Your task to perform on an android device: install app "Roku - Official Remote Control" Image 0: 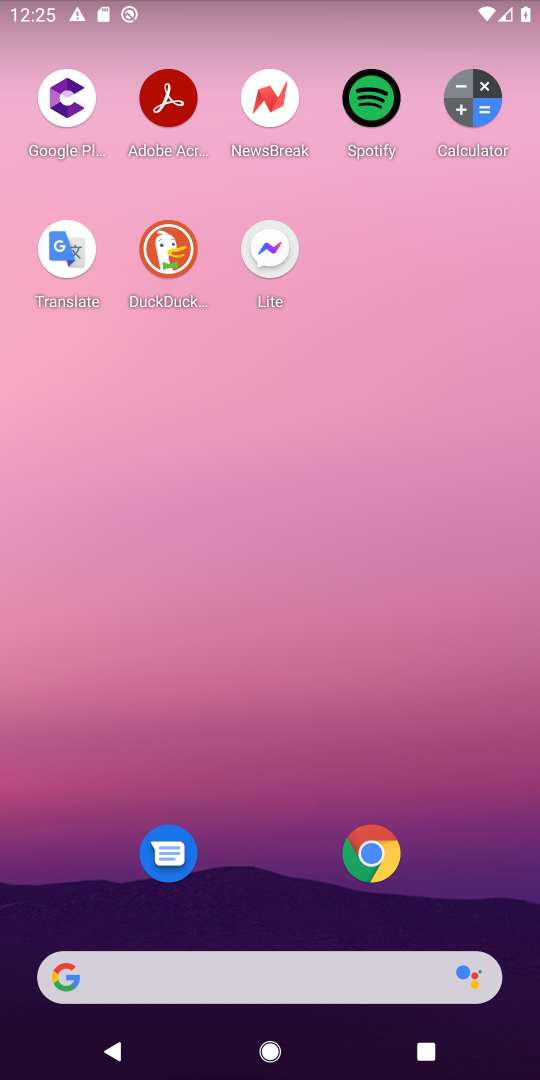
Step 0: drag from (278, 736) to (192, 214)
Your task to perform on an android device: install app "Roku - Official Remote Control" Image 1: 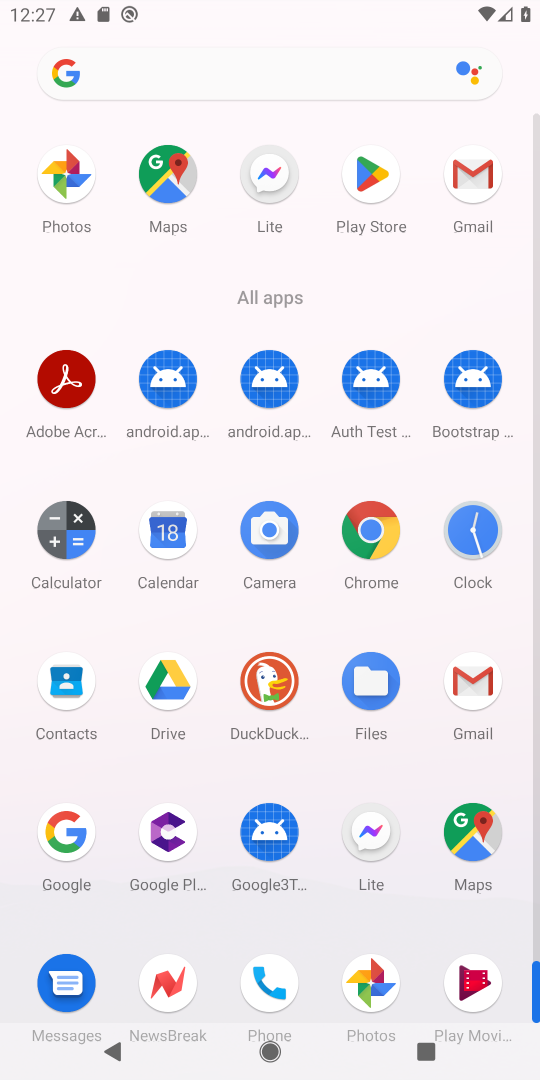
Step 1: click (373, 204)
Your task to perform on an android device: install app "Roku - Official Remote Control" Image 2: 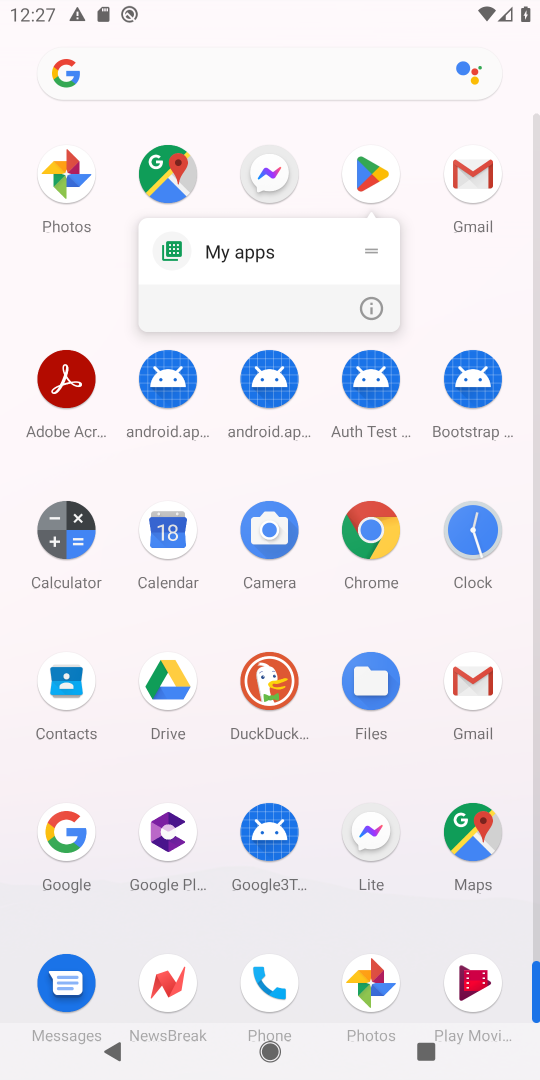
Step 2: click (385, 173)
Your task to perform on an android device: install app "Roku - Official Remote Control" Image 3: 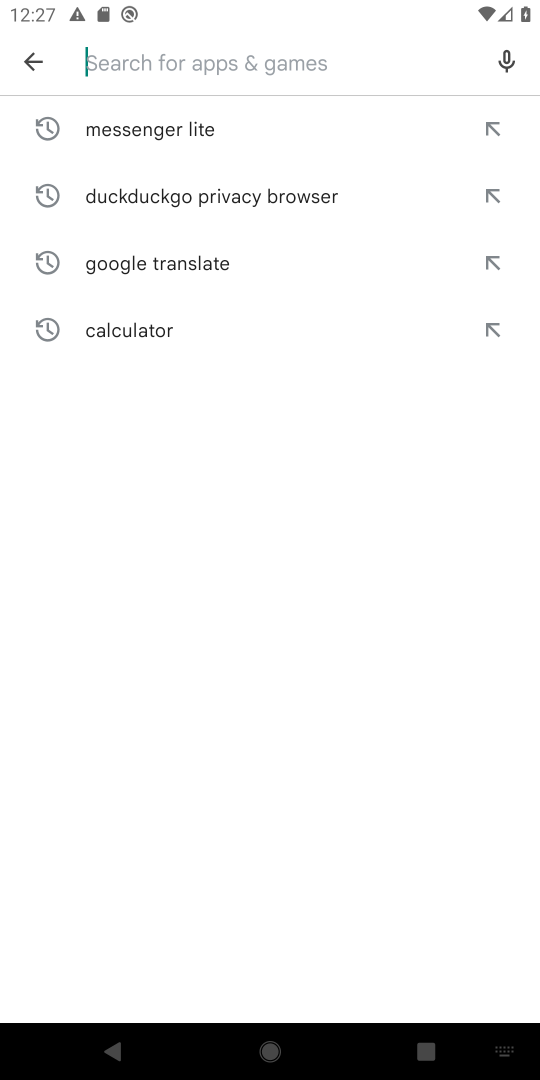
Step 3: type "Roku - Official Remote Control"
Your task to perform on an android device: install app "Roku - Official Remote Control" Image 4: 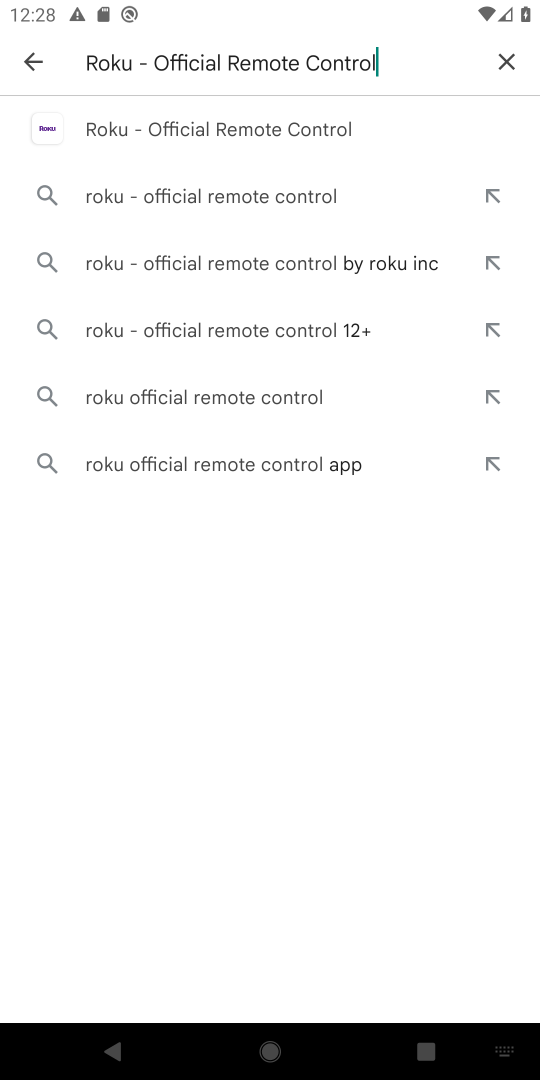
Step 4: click (289, 121)
Your task to perform on an android device: install app "Roku - Official Remote Control" Image 5: 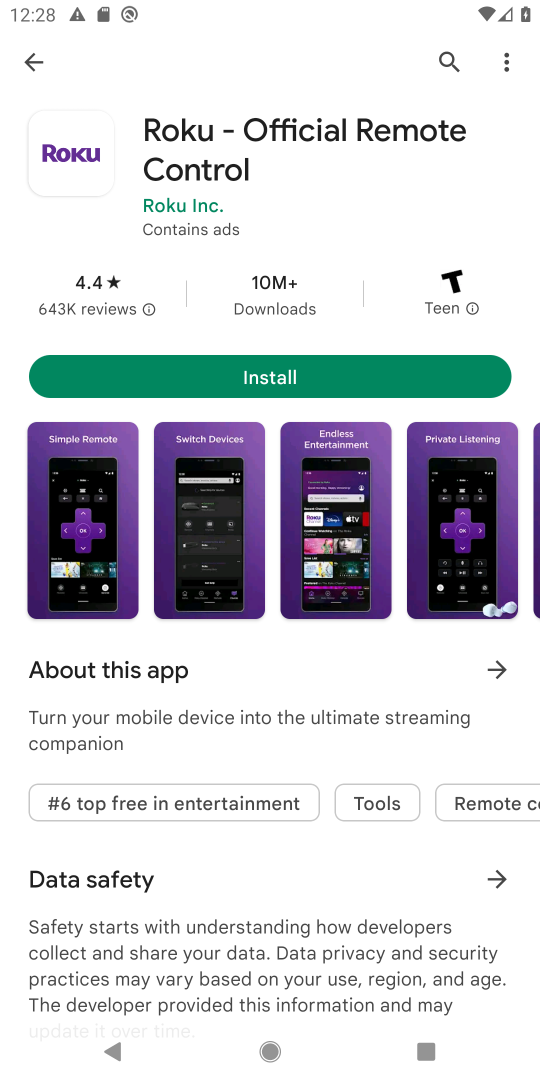
Step 5: click (296, 369)
Your task to perform on an android device: install app "Roku - Official Remote Control" Image 6: 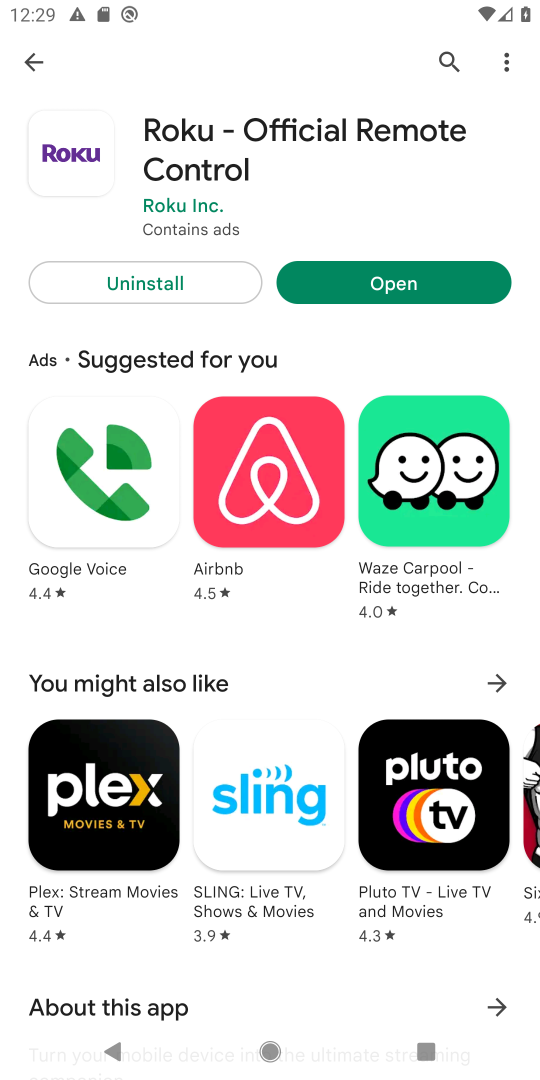
Step 6: task complete